Your task to perform on an android device: Show me popular videos on Youtube Image 0: 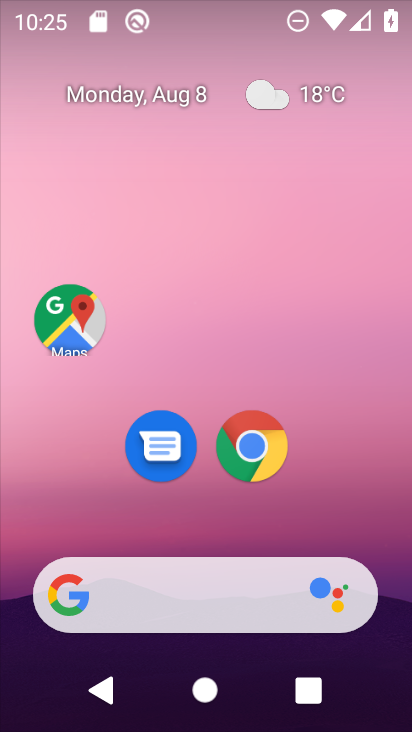
Step 0: drag from (397, 626) to (367, 144)
Your task to perform on an android device: Show me popular videos on Youtube Image 1: 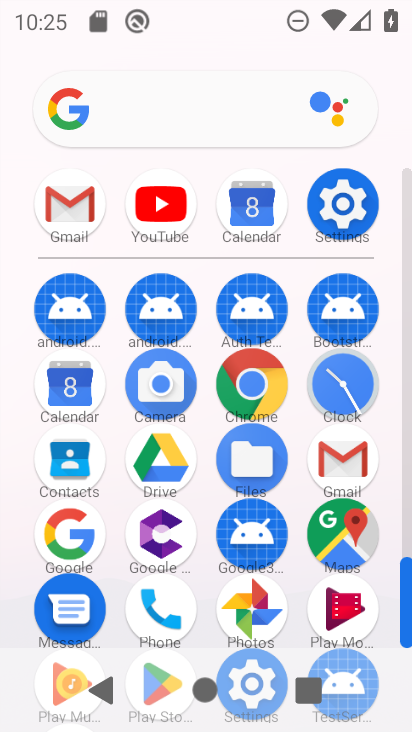
Step 1: drag from (406, 539) to (406, 502)
Your task to perform on an android device: Show me popular videos on Youtube Image 2: 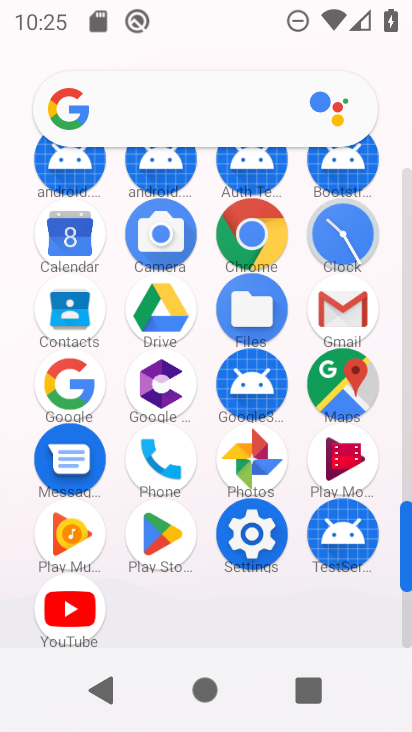
Step 2: click (66, 611)
Your task to perform on an android device: Show me popular videos on Youtube Image 3: 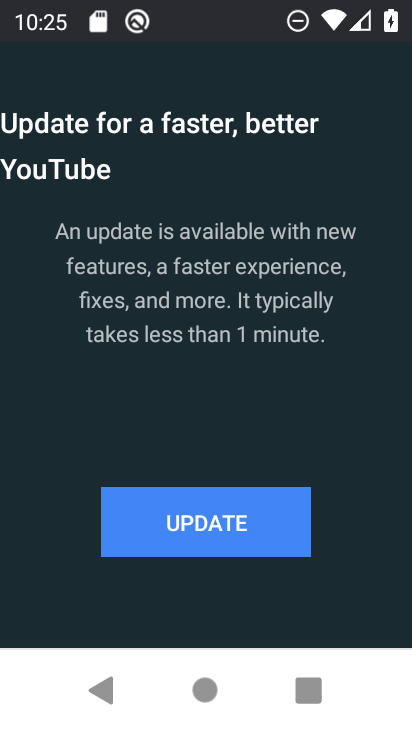
Step 3: click (202, 523)
Your task to perform on an android device: Show me popular videos on Youtube Image 4: 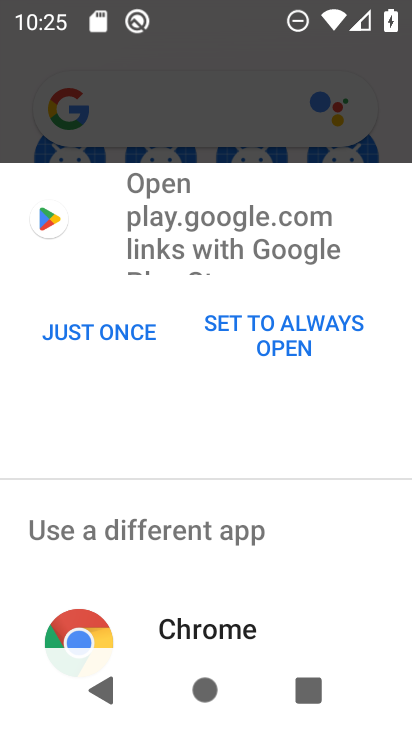
Step 4: click (88, 340)
Your task to perform on an android device: Show me popular videos on Youtube Image 5: 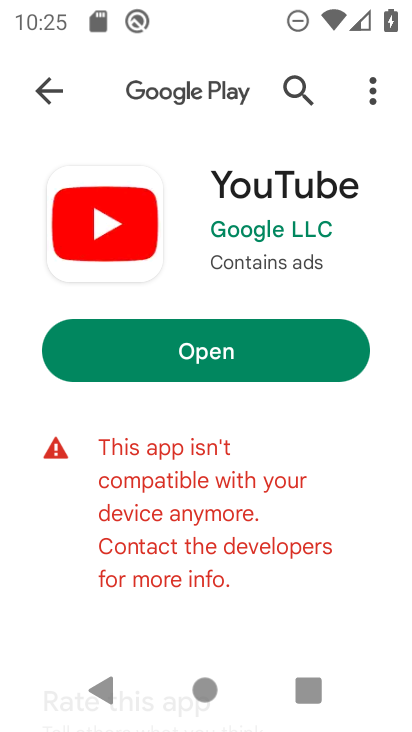
Step 5: click (211, 357)
Your task to perform on an android device: Show me popular videos on Youtube Image 6: 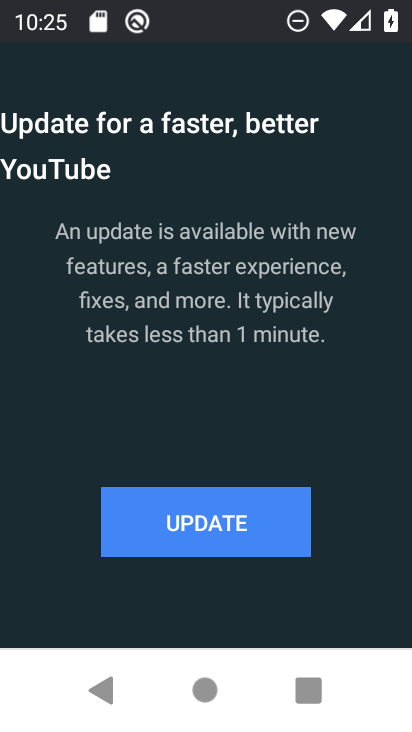
Step 6: task complete